Your task to perform on an android device: stop showing notifications on the lock screen Image 0: 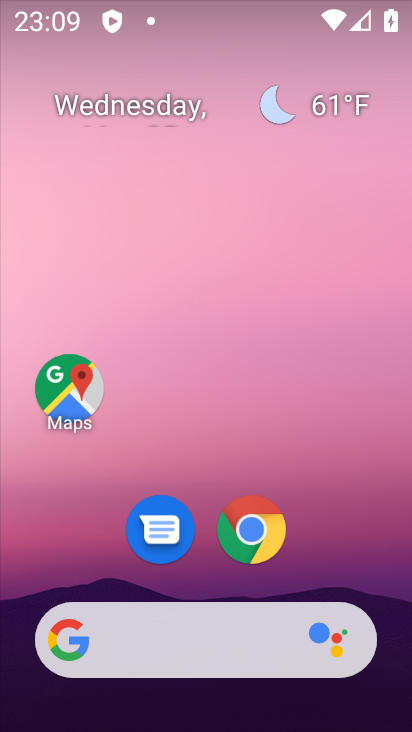
Step 0: drag from (375, 585) to (371, 220)
Your task to perform on an android device: stop showing notifications on the lock screen Image 1: 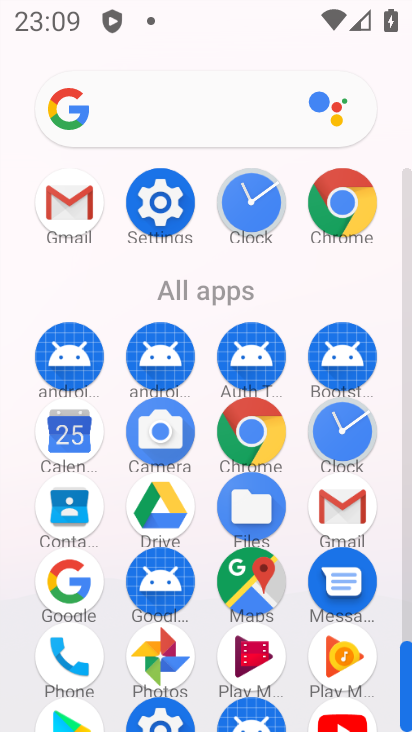
Step 1: click (163, 213)
Your task to perform on an android device: stop showing notifications on the lock screen Image 2: 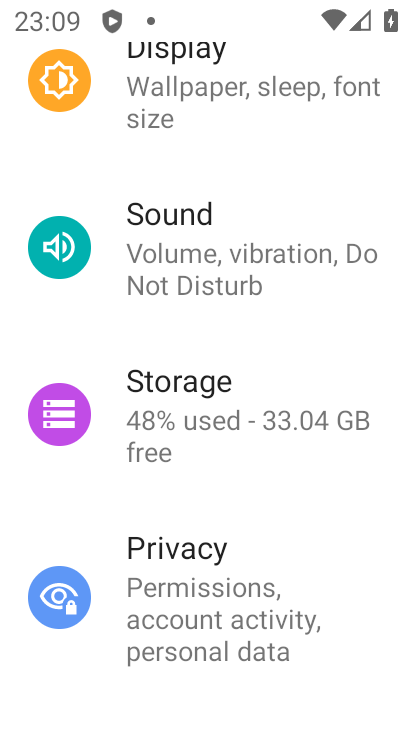
Step 2: drag from (376, 192) to (381, 311)
Your task to perform on an android device: stop showing notifications on the lock screen Image 3: 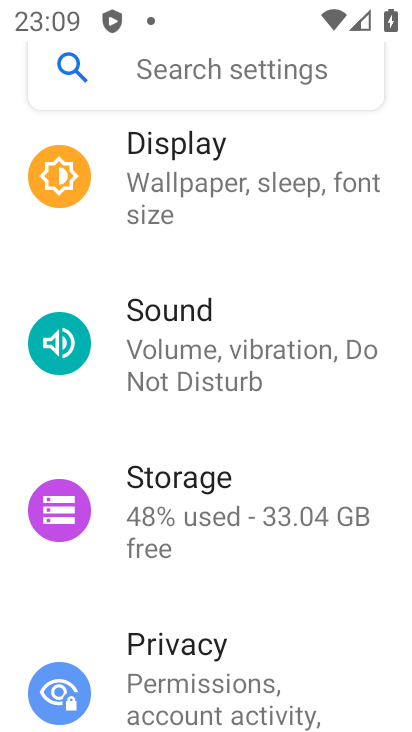
Step 3: drag from (369, 144) to (363, 289)
Your task to perform on an android device: stop showing notifications on the lock screen Image 4: 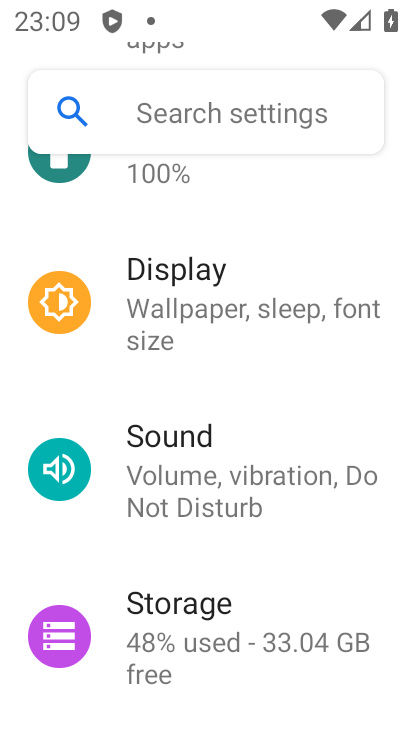
Step 4: drag from (365, 178) to (366, 318)
Your task to perform on an android device: stop showing notifications on the lock screen Image 5: 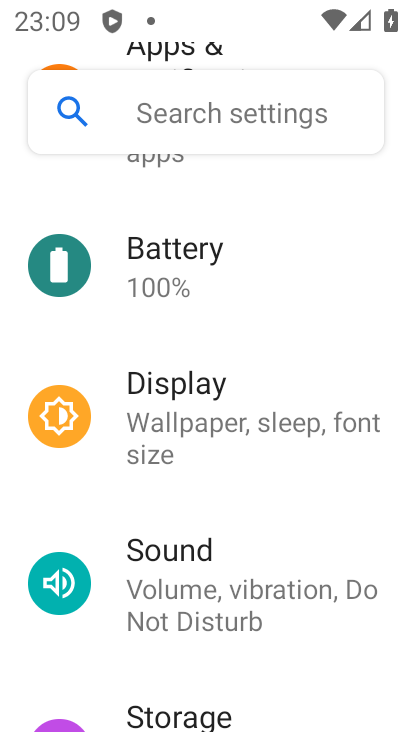
Step 5: drag from (358, 192) to (348, 314)
Your task to perform on an android device: stop showing notifications on the lock screen Image 6: 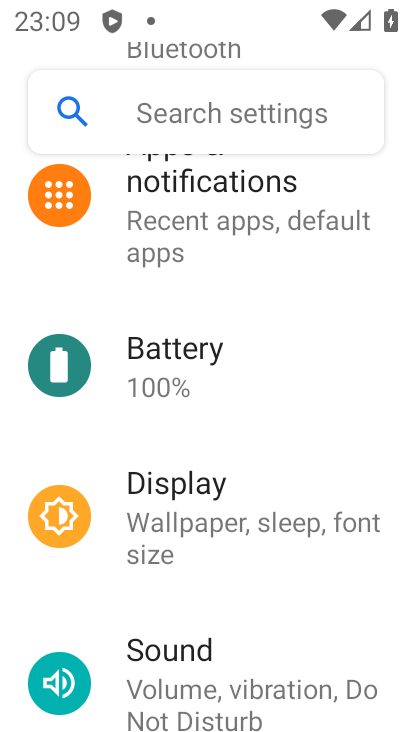
Step 6: drag from (354, 185) to (347, 335)
Your task to perform on an android device: stop showing notifications on the lock screen Image 7: 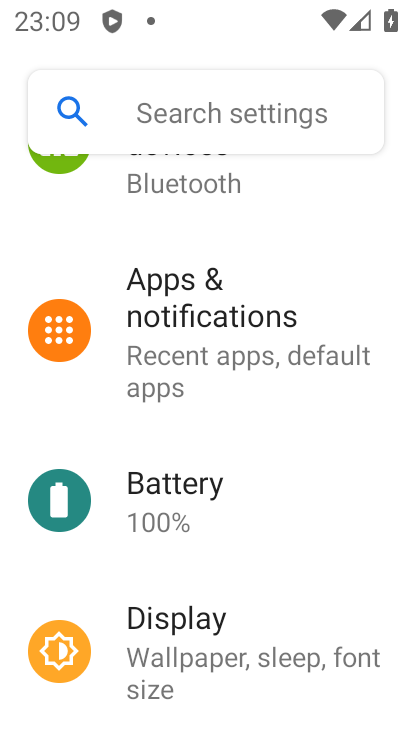
Step 7: drag from (362, 193) to (350, 359)
Your task to perform on an android device: stop showing notifications on the lock screen Image 8: 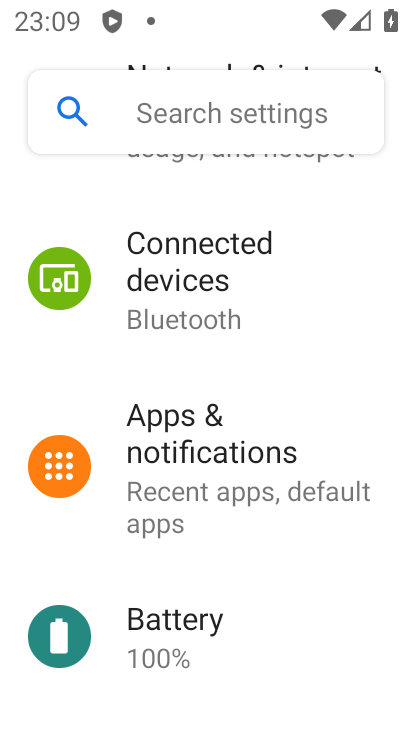
Step 8: click (283, 456)
Your task to perform on an android device: stop showing notifications on the lock screen Image 9: 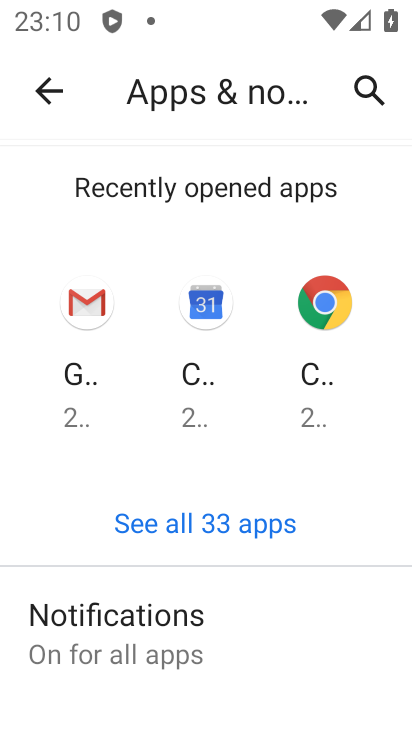
Step 9: drag from (356, 497) to (368, 365)
Your task to perform on an android device: stop showing notifications on the lock screen Image 10: 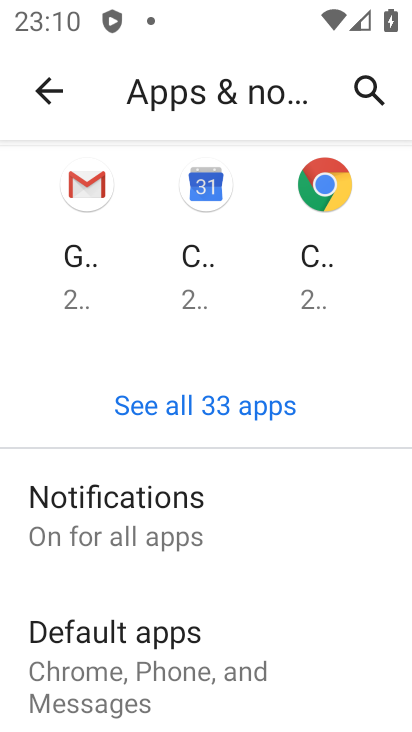
Step 10: drag from (336, 542) to (338, 374)
Your task to perform on an android device: stop showing notifications on the lock screen Image 11: 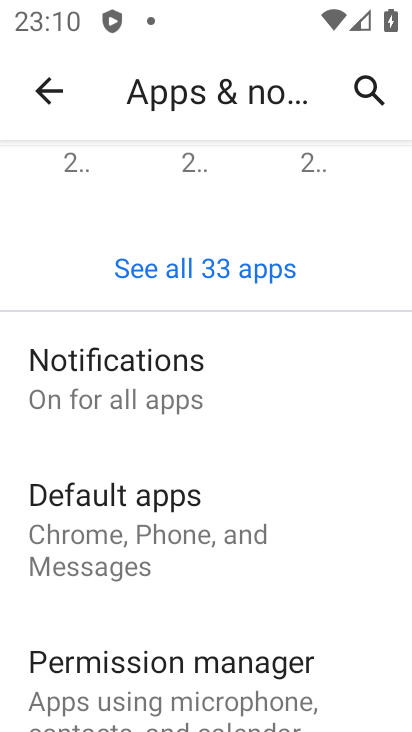
Step 11: drag from (344, 537) to (346, 373)
Your task to perform on an android device: stop showing notifications on the lock screen Image 12: 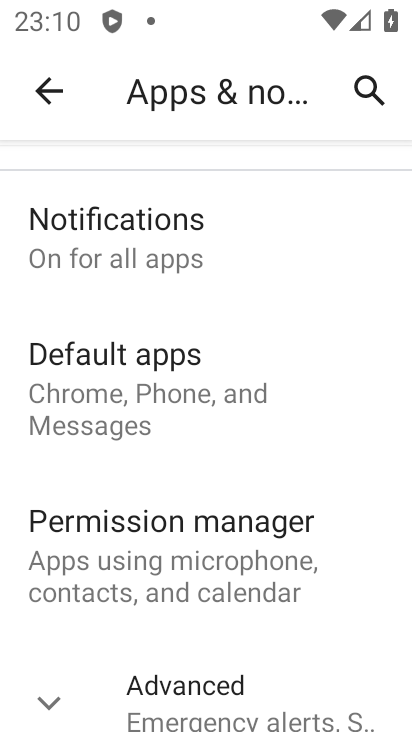
Step 12: drag from (344, 564) to (359, 453)
Your task to perform on an android device: stop showing notifications on the lock screen Image 13: 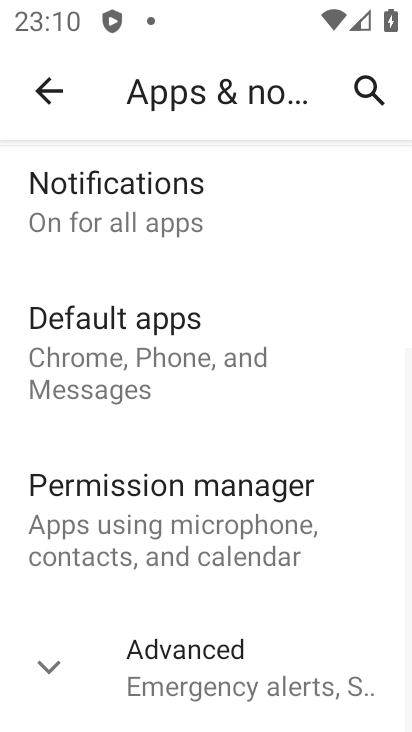
Step 13: click (193, 205)
Your task to perform on an android device: stop showing notifications on the lock screen Image 14: 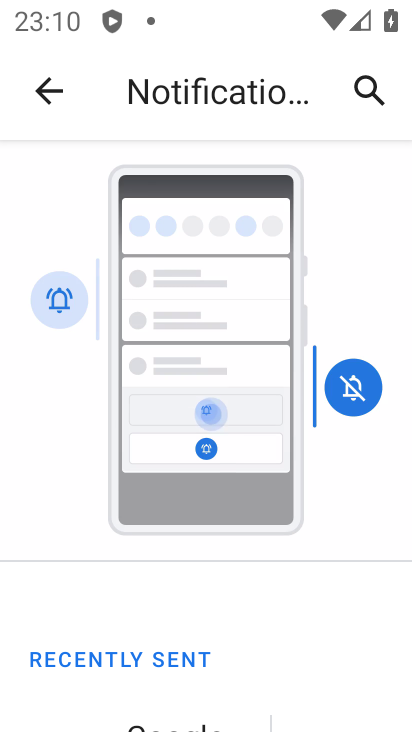
Step 14: drag from (325, 541) to (336, 411)
Your task to perform on an android device: stop showing notifications on the lock screen Image 15: 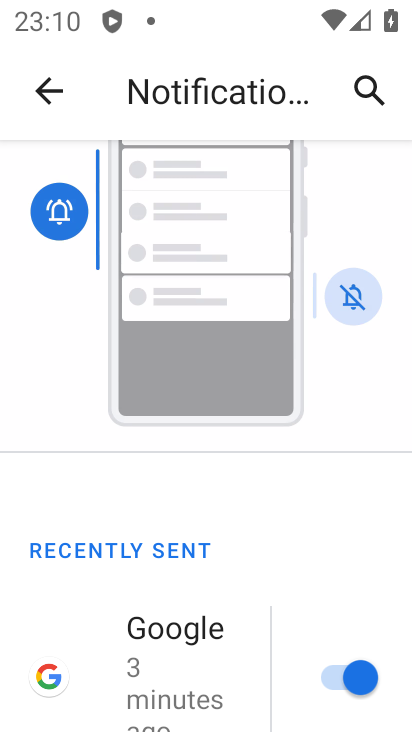
Step 15: drag from (329, 561) to (316, 417)
Your task to perform on an android device: stop showing notifications on the lock screen Image 16: 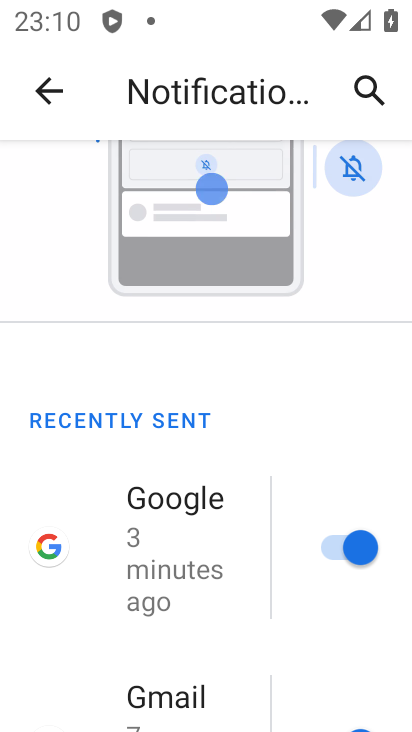
Step 16: drag from (298, 583) to (299, 487)
Your task to perform on an android device: stop showing notifications on the lock screen Image 17: 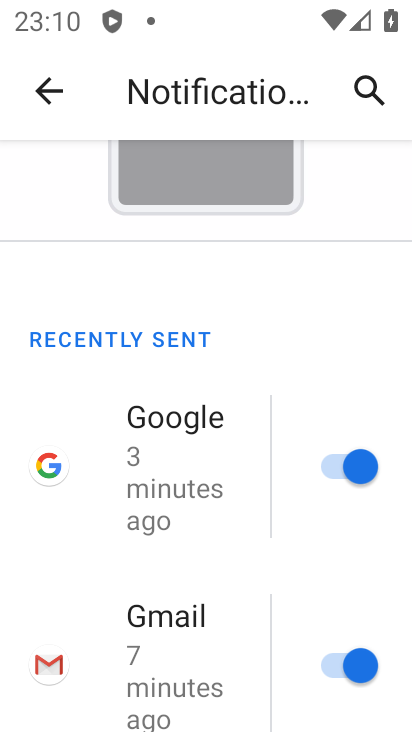
Step 17: drag from (306, 602) to (308, 492)
Your task to perform on an android device: stop showing notifications on the lock screen Image 18: 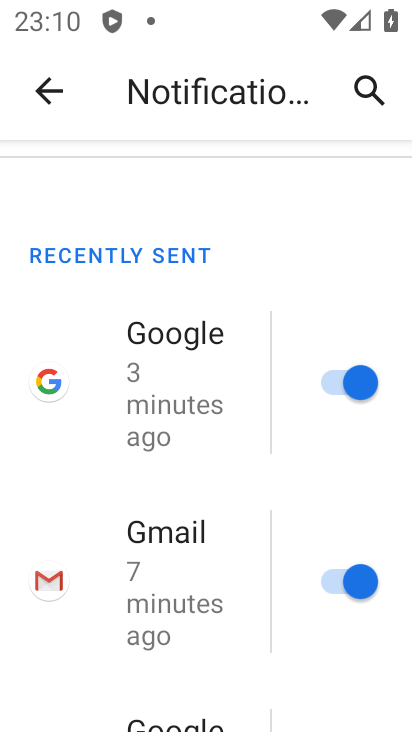
Step 18: drag from (304, 607) to (290, 480)
Your task to perform on an android device: stop showing notifications on the lock screen Image 19: 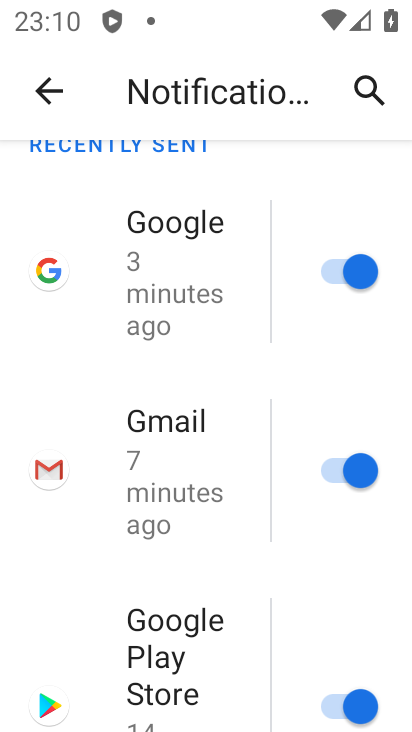
Step 19: drag from (316, 620) to (325, 498)
Your task to perform on an android device: stop showing notifications on the lock screen Image 20: 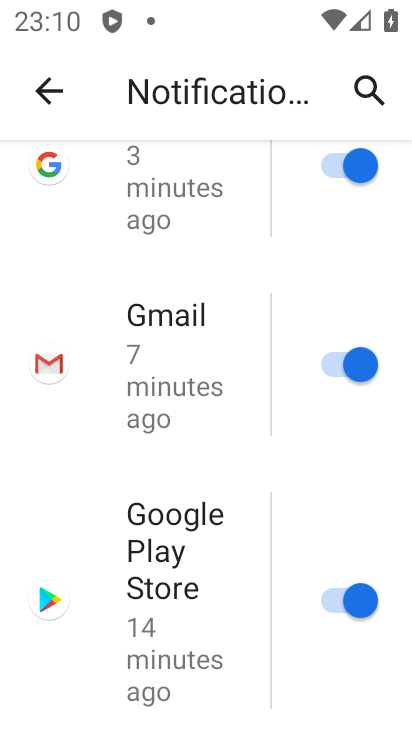
Step 20: drag from (320, 649) to (307, 532)
Your task to perform on an android device: stop showing notifications on the lock screen Image 21: 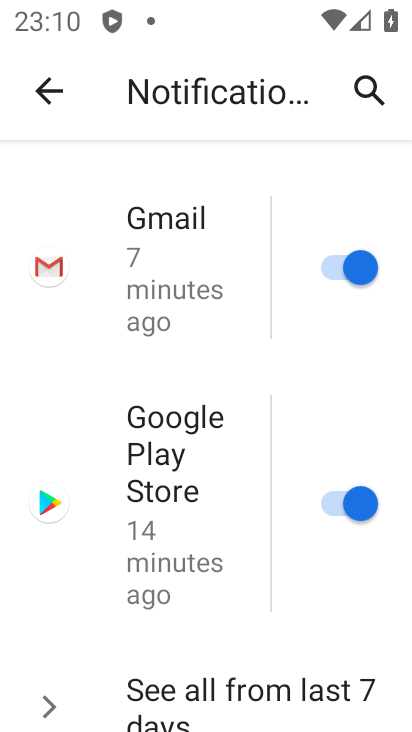
Step 21: drag from (323, 636) to (298, 494)
Your task to perform on an android device: stop showing notifications on the lock screen Image 22: 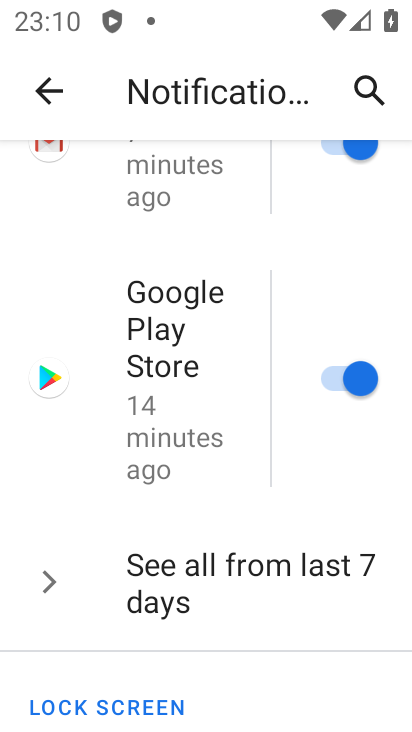
Step 22: drag from (300, 626) to (296, 513)
Your task to perform on an android device: stop showing notifications on the lock screen Image 23: 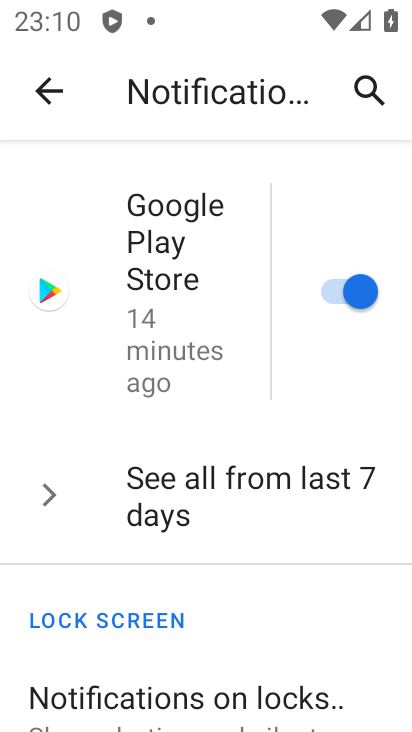
Step 23: drag from (304, 625) to (314, 482)
Your task to perform on an android device: stop showing notifications on the lock screen Image 24: 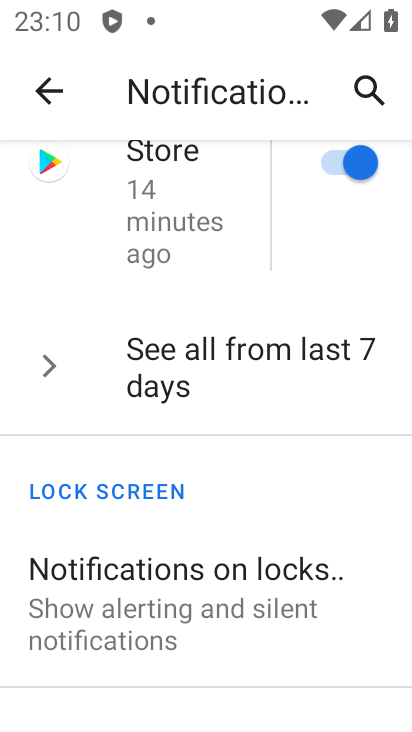
Step 24: drag from (316, 673) to (310, 541)
Your task to perform on an android device: stop showing notifications on the lock screen Image 25: 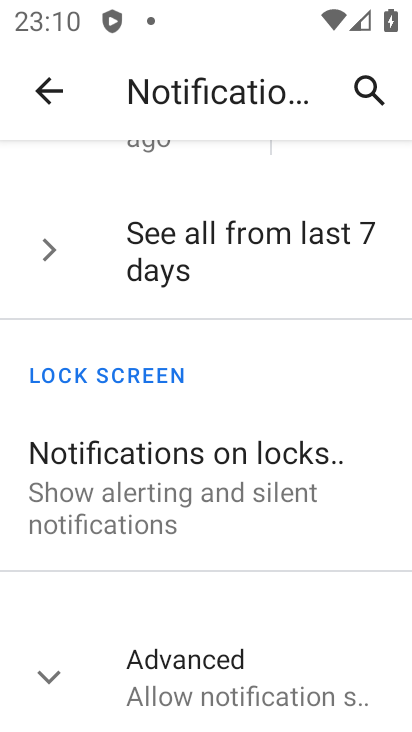
Step 25: click (303, 483)
Your task to perform on an android device: stop showing notifications on the lock screen Image 26: 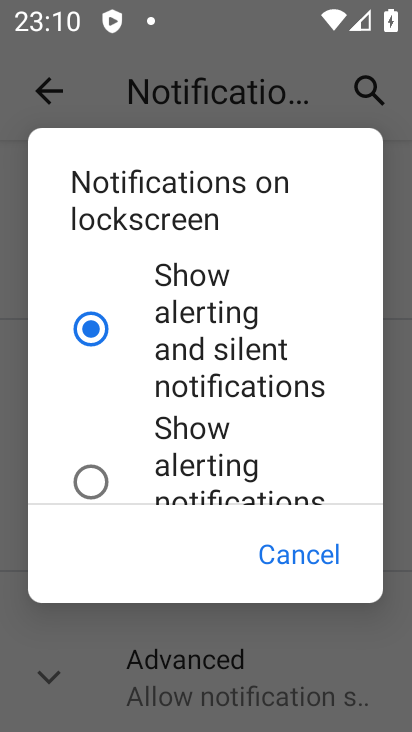
Step 26: task complete